Your task to perform on an android device: Open calendar and show me the fourth week of next month Image 0: 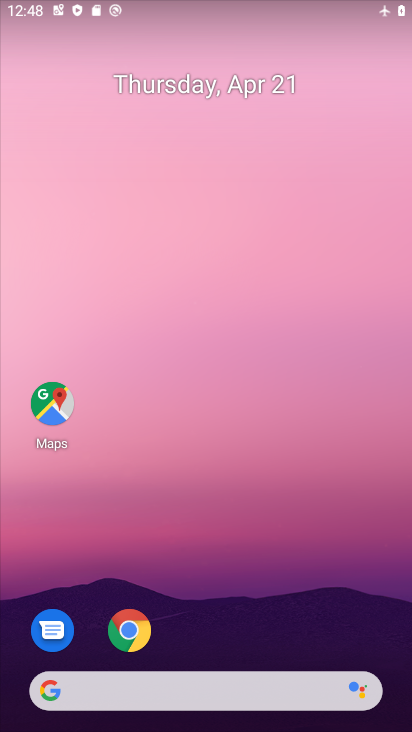
Step 0: drag from (303, 615) to (162, 312)
Your task to perform on an android device: Open calendar and show me the fourth week of next month Image 1: 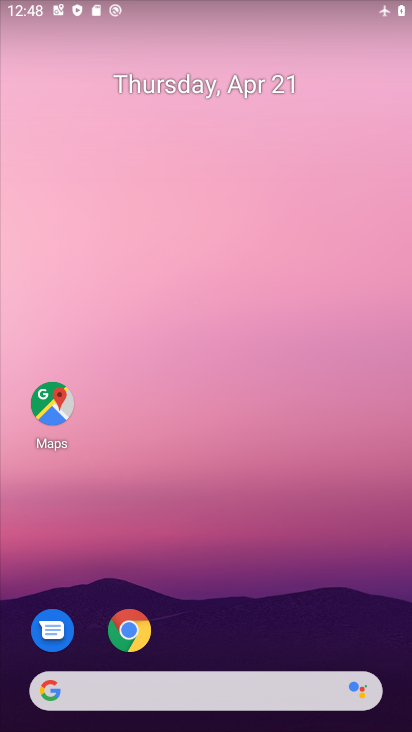
Step 1: drag from (205, 629) to (185, 361)
Your task to perform on an android device: Open calendar and show me the fourth week of next month Image 2: 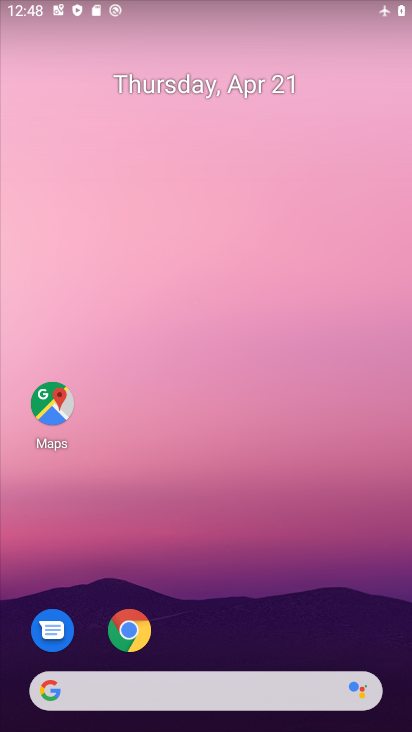
Step 2: drag from (262, 607) to (247, 19)
Your task to perform on an android device: Open calendar and show me the fourth week of next month Image 3: 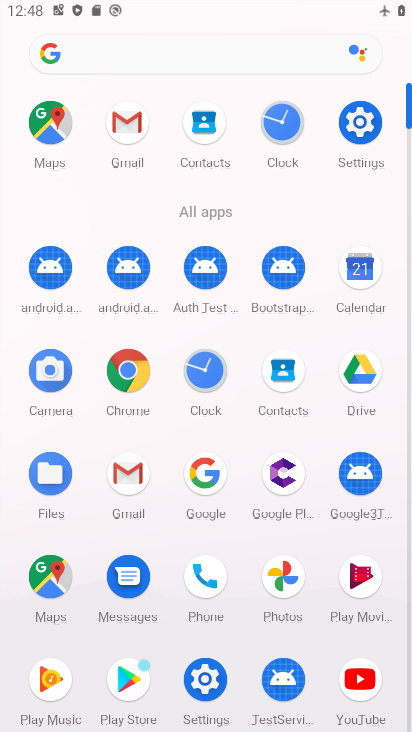
Step 3: click (369, 282)
Your task to perform on an android device: Open calendar and show me the fourth week of next month Image 4: 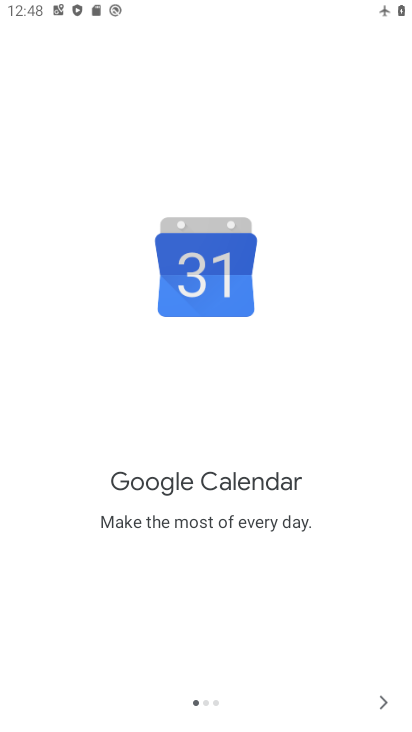
Step 4: click (375, 698)
Your task to perform on an android device: Open calendar and show me the fourth week of next month Image 5: 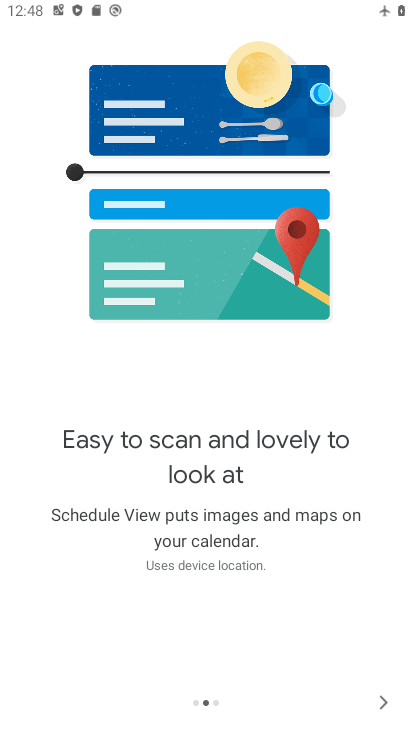
Step 5: click (375, 698)
Your task to perform on an android device: Open calendar and show me the fourth week of next month Image 6: 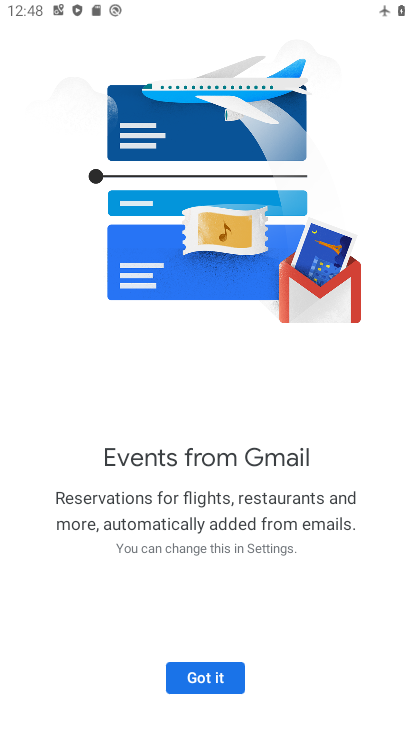
Step 6: click (375, 698)
Your task to perform on an android device: Open calendar and show me the fourth week of next month Image 7: 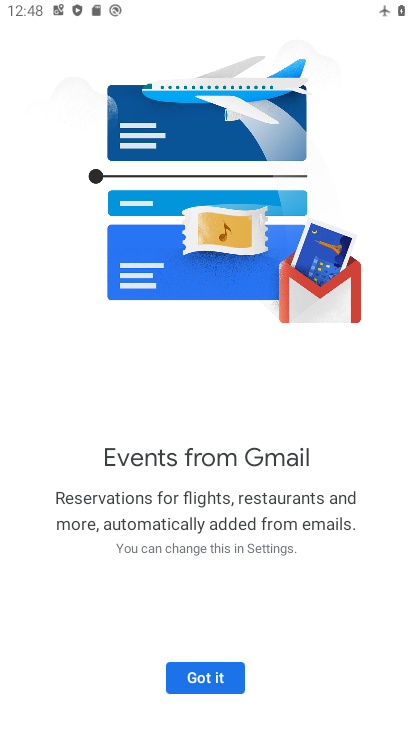
Step 7: click (208, 684)
Your task to perform on an android device: Open calendar and show me the fourth week of next month Image 8: 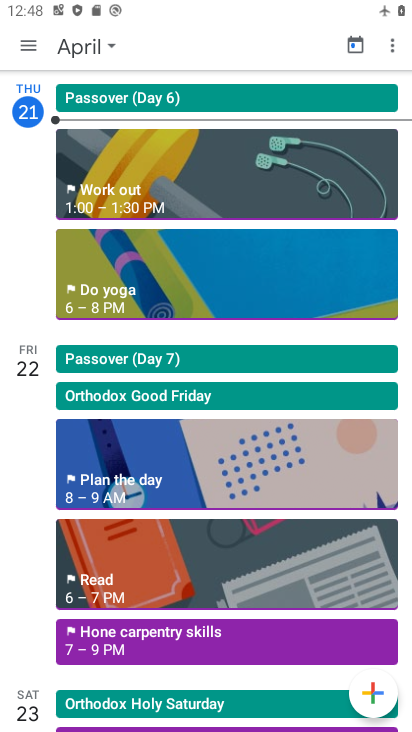
Step 8: click (86, 54)
Your task to perform on an android device: Open calendar and show me the fourth week of next month Image 9: 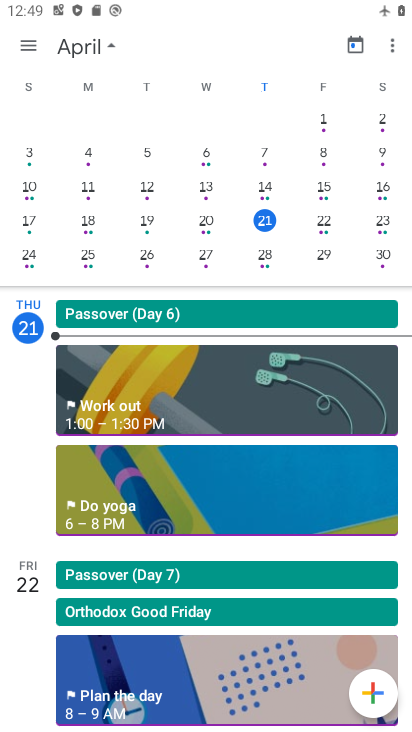
Step 9: drag from (317, 227) to (112, 197)
Your task to perform on an android device: Open calendar and show me the fourth week of next month Image 10: 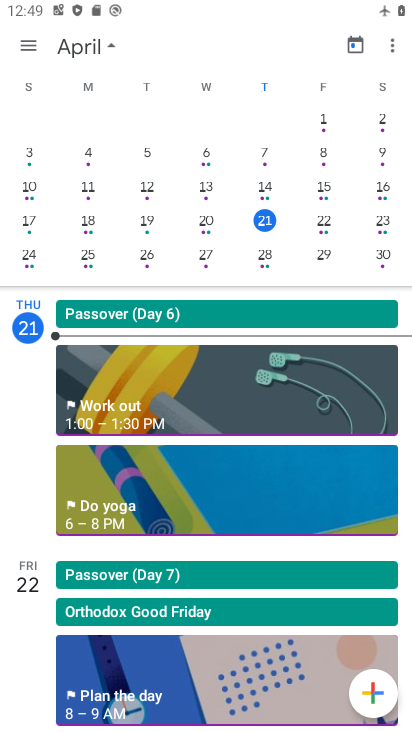
Step 10: drag from (355, 227) to (24, 133)
Your task to perform on an android device: Open calendar and show me the fourth week of next month Image 11: 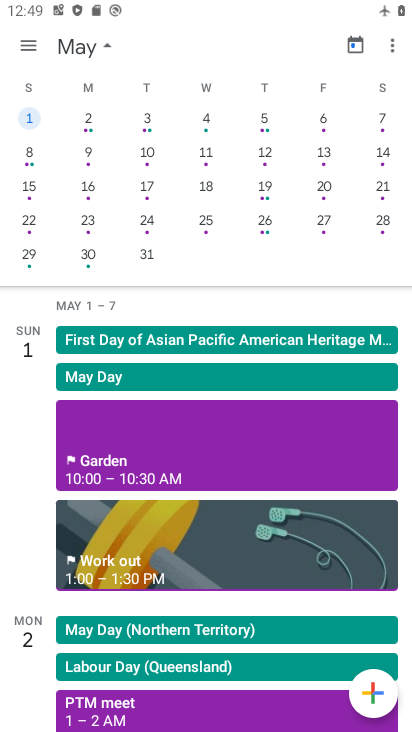
Step 11: click (215, 226)
Your task to perform on an android device: Open calendar and show me the fourth week of next month Image 12: 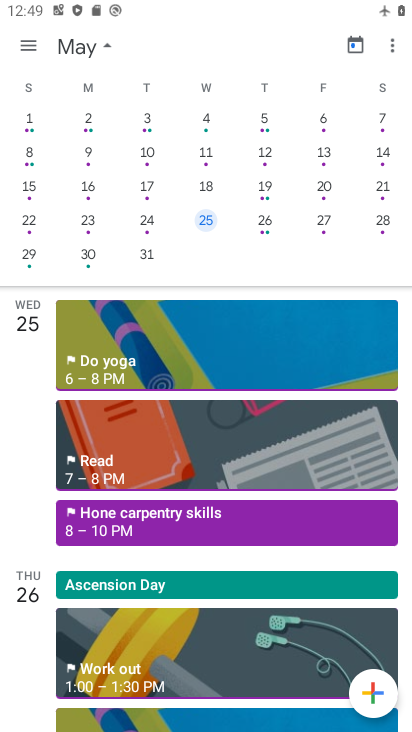
Step 12: task complete